Your task to perform on an android device: toggle priority inbox in the gmail app Image 0: 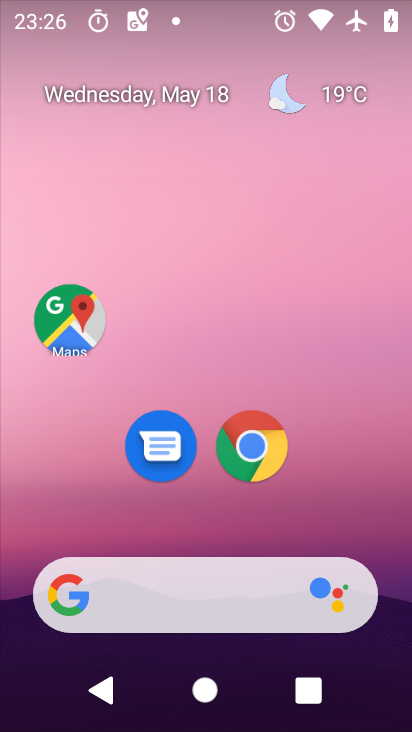
Step 0: press home button
Your task to perform on an android device: toggle priority inbox in the gmail app Image 1: 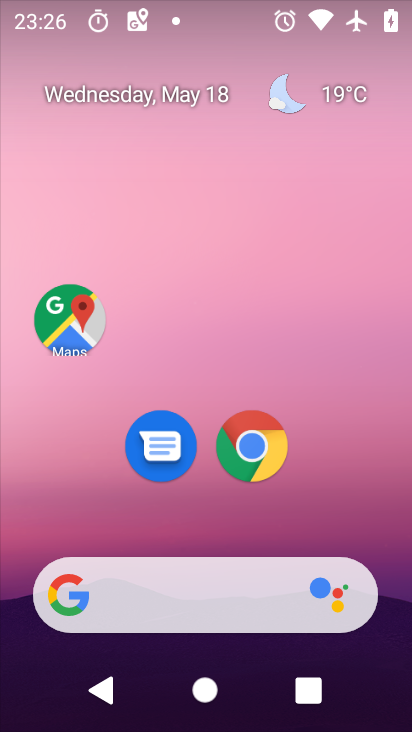
Step 1: drag from (192, 605) to (292, 180)
Your task to perform on an android device: toggle priority inbox in the gmail app Image 2: 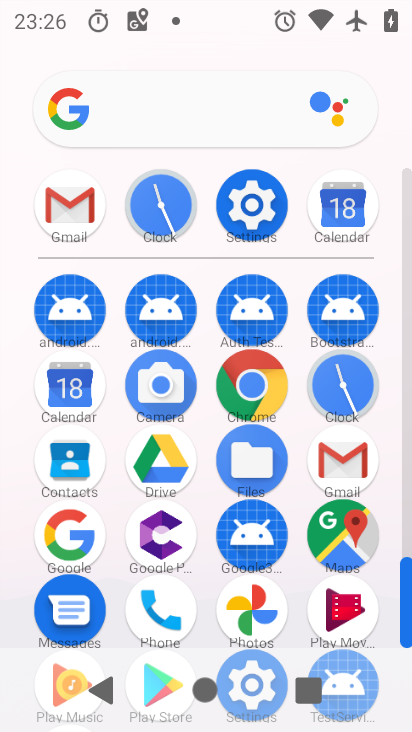
Step 2: click (60, 212)
Your task to perform on an android device: toggle priority inbox in the gmail app Image 3: 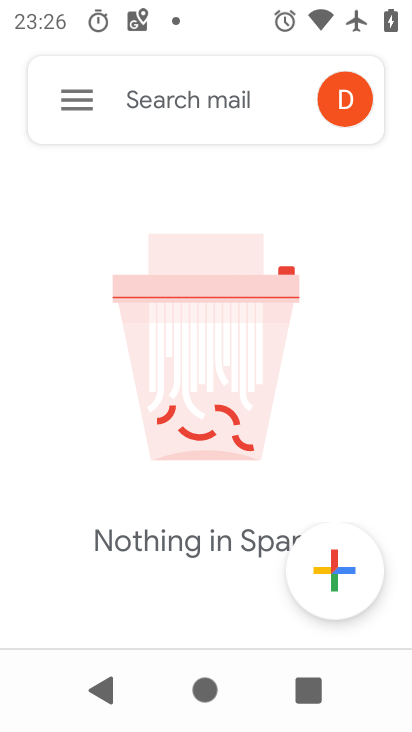
Step 3: click (68, 100)
Your task to perform on an android device: toggle priority inbox in the gmail app Image 4: 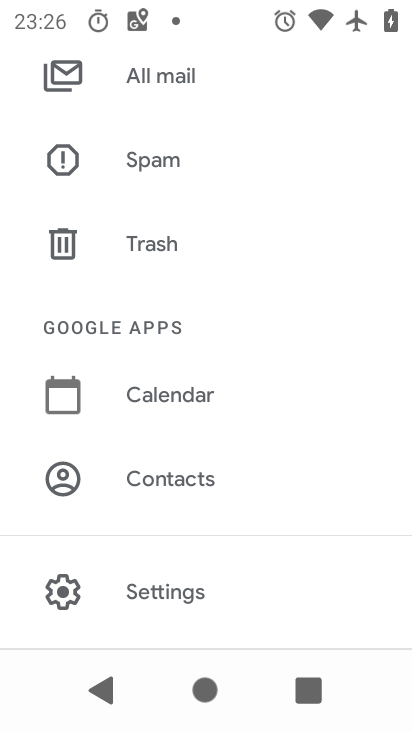
Step 4: click (197, 591)
Your task to perform on an android device: toggle priority inbox in the gmail app Image 5: 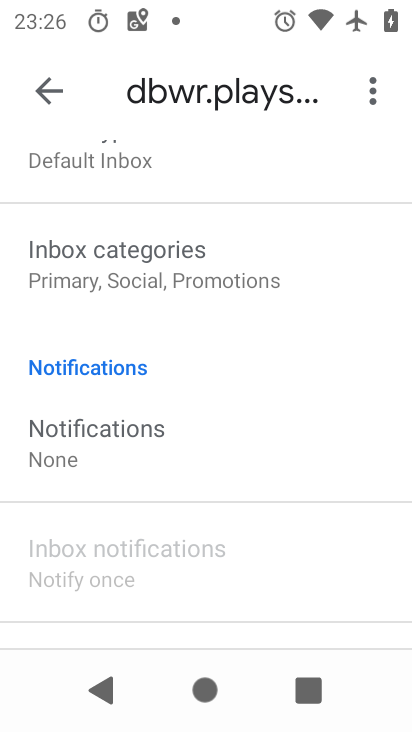
Step 5: drag from (316, 171) to (273, 561)
Your task to perform on an android device: toggle priority inbox in the gmail app Image 6: 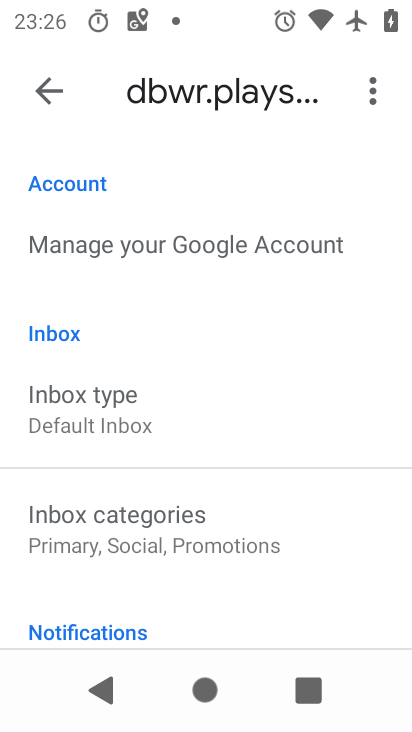
Step 6: drag from (283, 315) to (268, 530)
Your task to perform on an android device: toggle priority inbox in the gmail app Image 7: 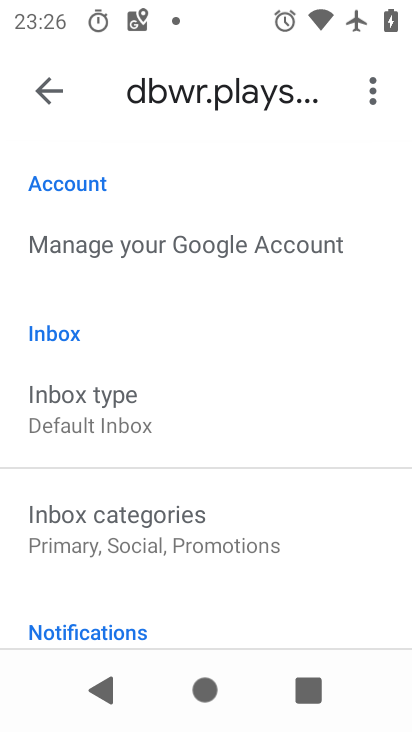
Step 7: click (94, 411)
Your task to perform on an android device: toggle priority inbox in the gmail app Image 8: 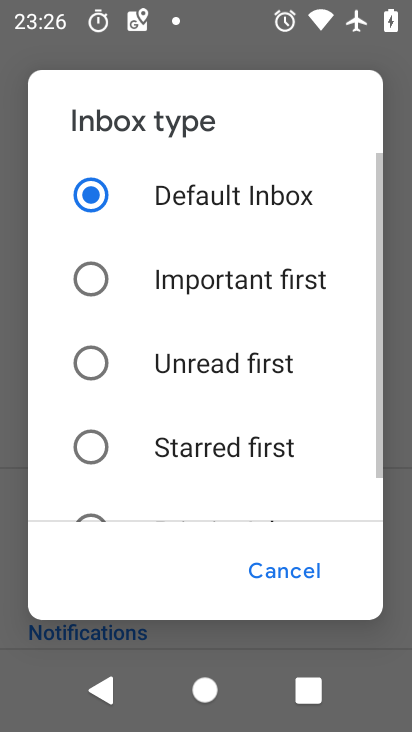
Step 8: drag from (137, 487) to (265, 205)
Your task to perform on an android device: toggle priority inbox in the gmail app Image 9: 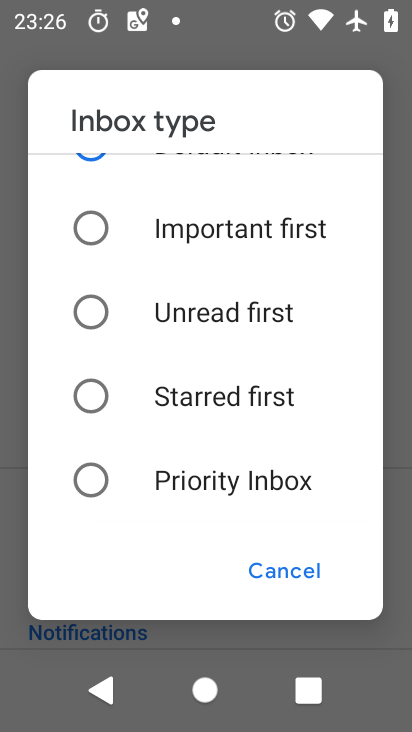
Step 9: click (96, 488)
Your task to perform on an android device: toggle priority inbox in the gmail app Image 10: 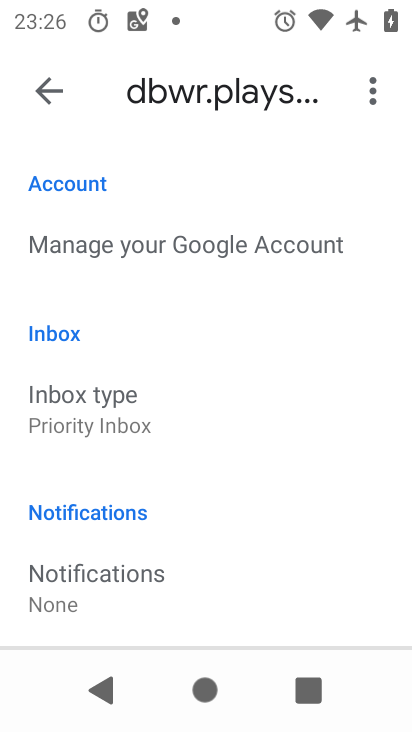
Step 10: task complete